Your task to perform on an android device: change keyboard looks Image 0: 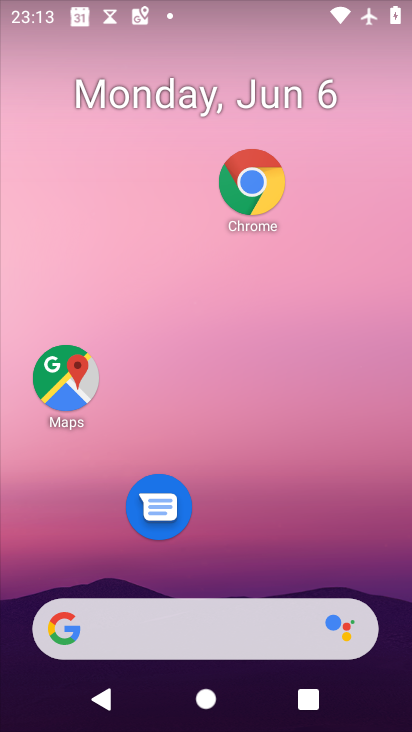
Step 0: drag from (230, 592) to (276, 252)
Your task to perform on an android device: change keyboard looks Image 1: 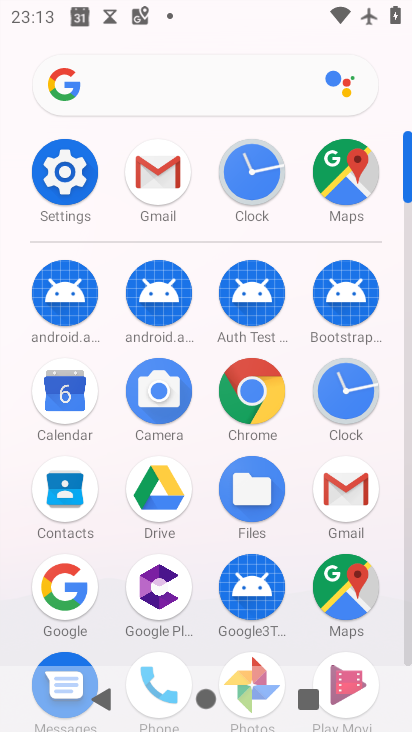
Step 1: click (40, 155)
Your task to perform on an android device: change keyboard looks Image 2: 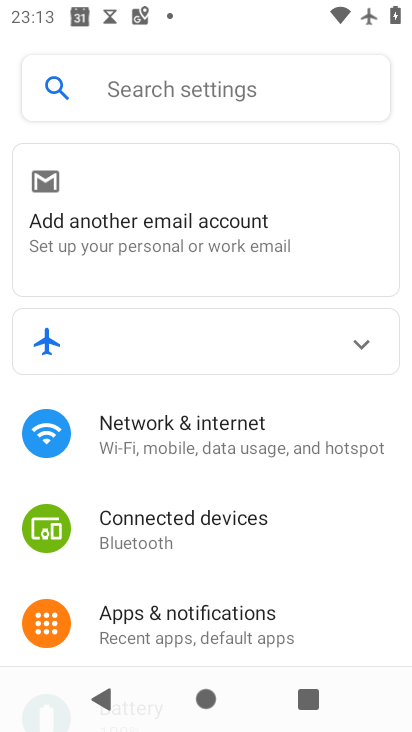
Step 2: drag from (244, 616) to (298, 156)
Your task to perform on an android device: change keyboard looks Image 3: 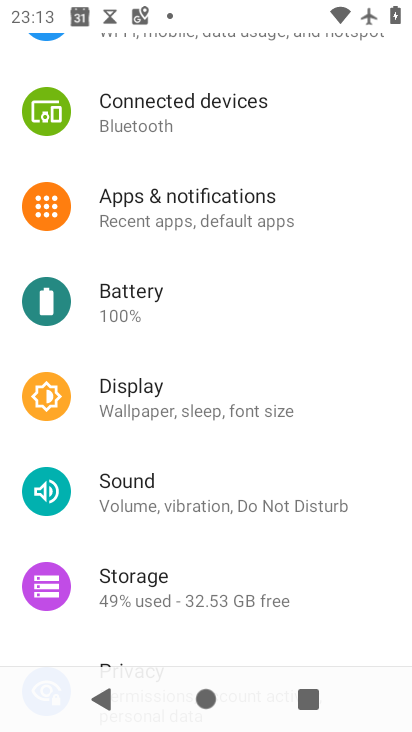
Step 3: drag from (224, 594) to (269, 139)
Your task to perform on an android device: change keyboard looks Image 4: 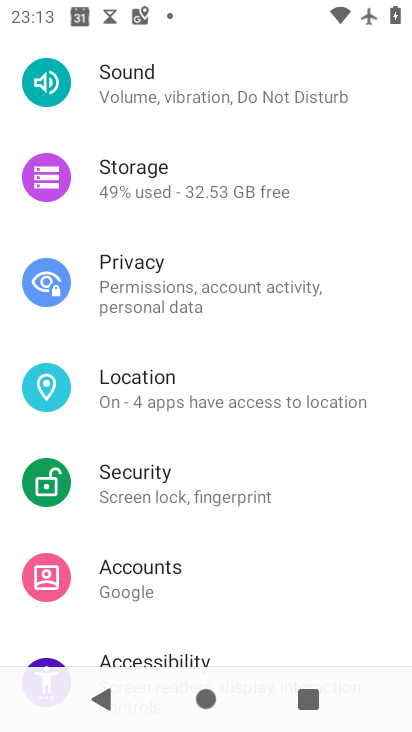
Step 4: drag from (223, 586) to (267, 159)
Your task to perform on an android device: change keyboard looks Image 5: 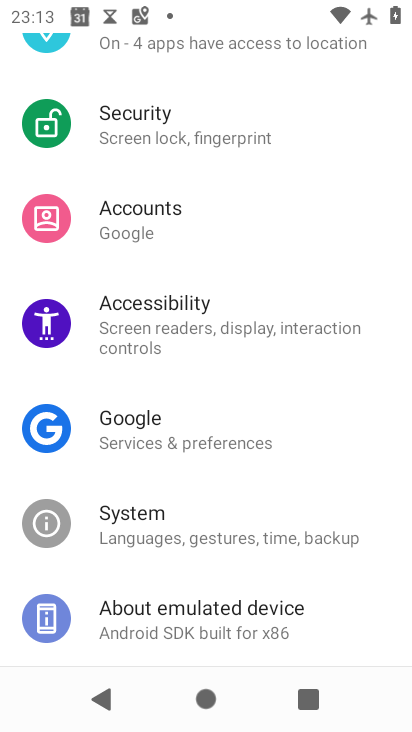
Step 5: click (190, 524)
Your task to perform on an android device: change keyboard looks Image 6: 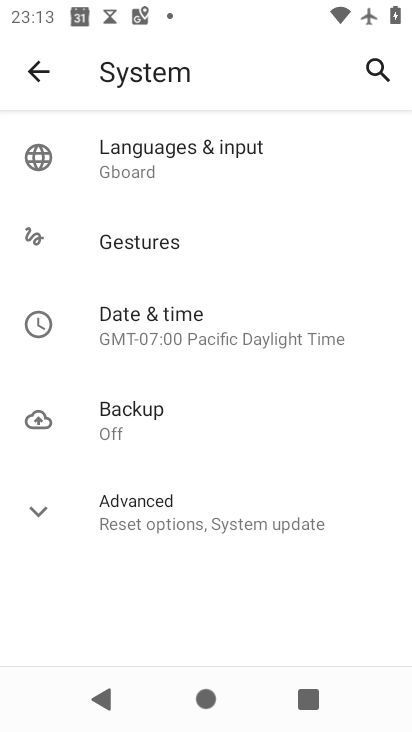
Step 6: click (116, 157)
Your task to perform on an android device: change keyboard looks Image 7: 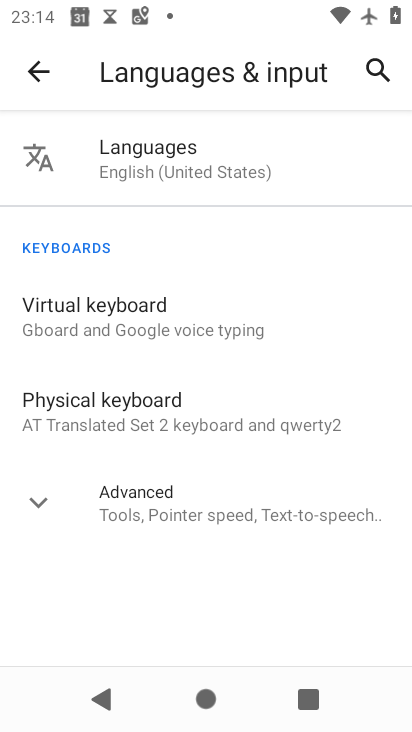
Step 7: click (144, 294)
Your task to perform on an android device: change keyboard looks Image 8: 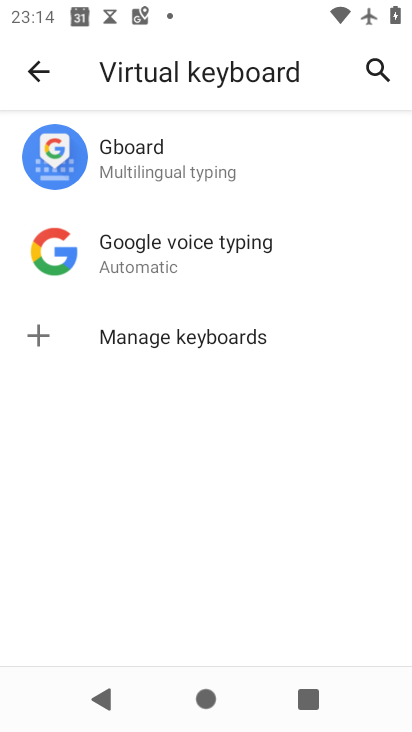
Step 8: click (133, 183)
Your task to perform on an android device: change keyboard looks Image 9: 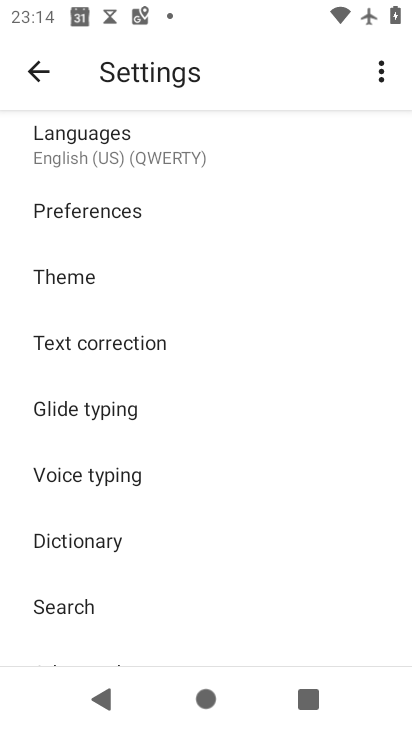
Step 9: click (83, 155)
Your task to perform on an android device: change keyboard looks Image 10: 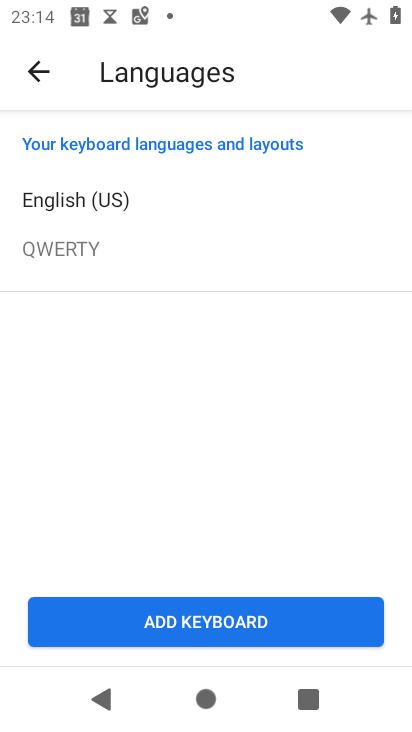
Step 10: click (28, 76)
Your task to perform on an android device: change keyboard looks Image 11: 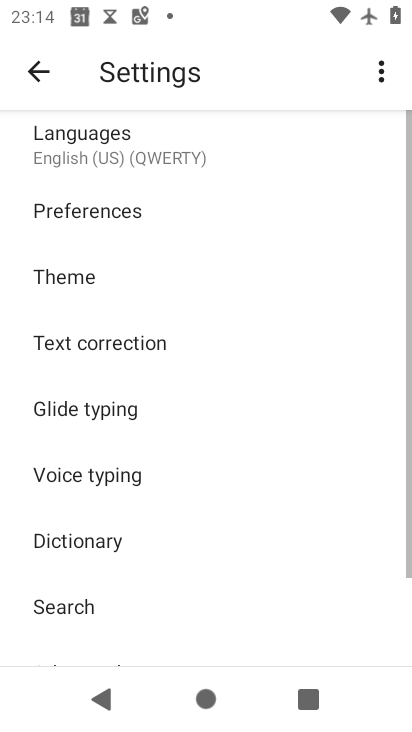
Step 11: click (98, 260)
Your task to perform on an android device: change keyboard looks Image 12: 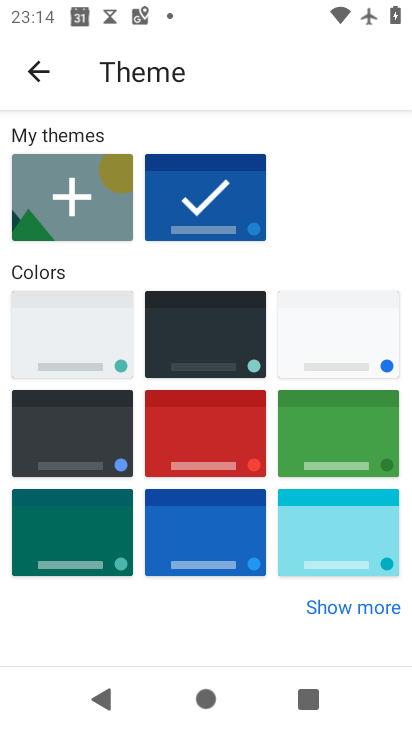
Step 12: click (319, 417)
Your task to perform on an android device: change keyboard looks Image 13: 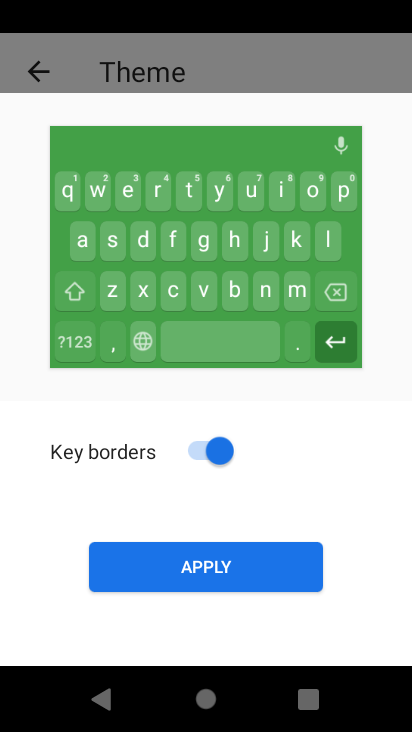
Step 13: click (178, 564)
Your task to perform on an android device: change keyboard looks Image 14: 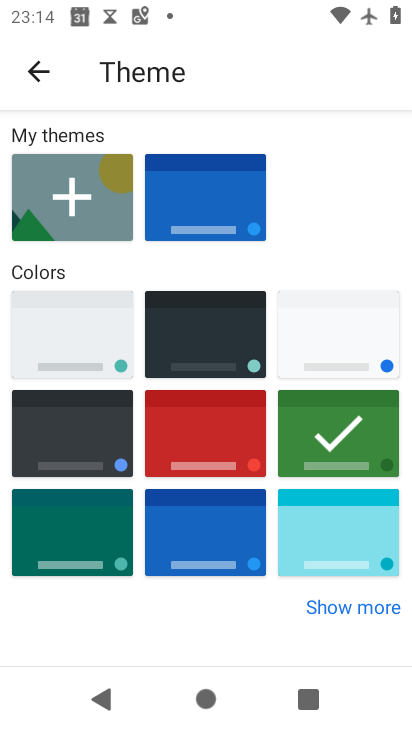
Step 14: task complete